Your task to perform on an android device: Open calendar and show me the first week of next month Image 0: 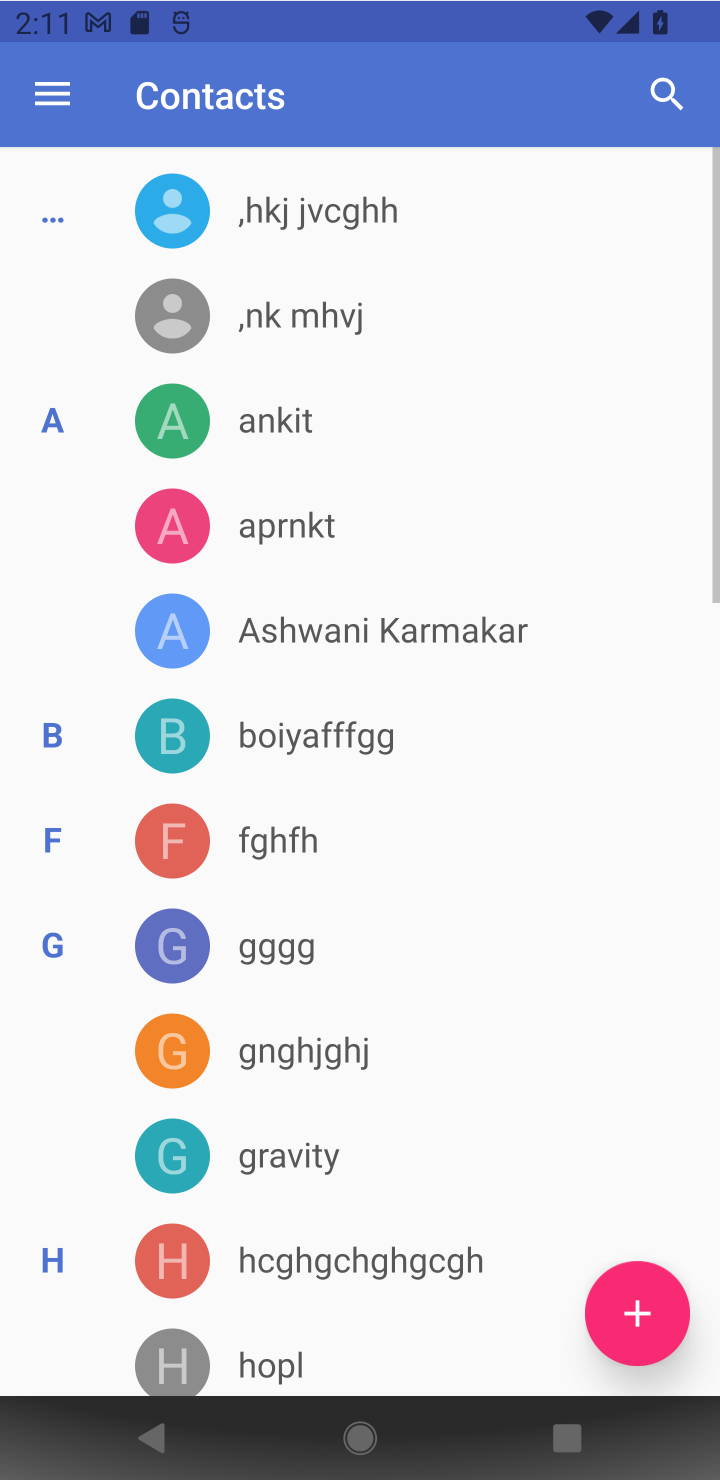
Step 0: press home button
Your task to perform on an android device: Open calendar and show me the first week of next month Image 1: 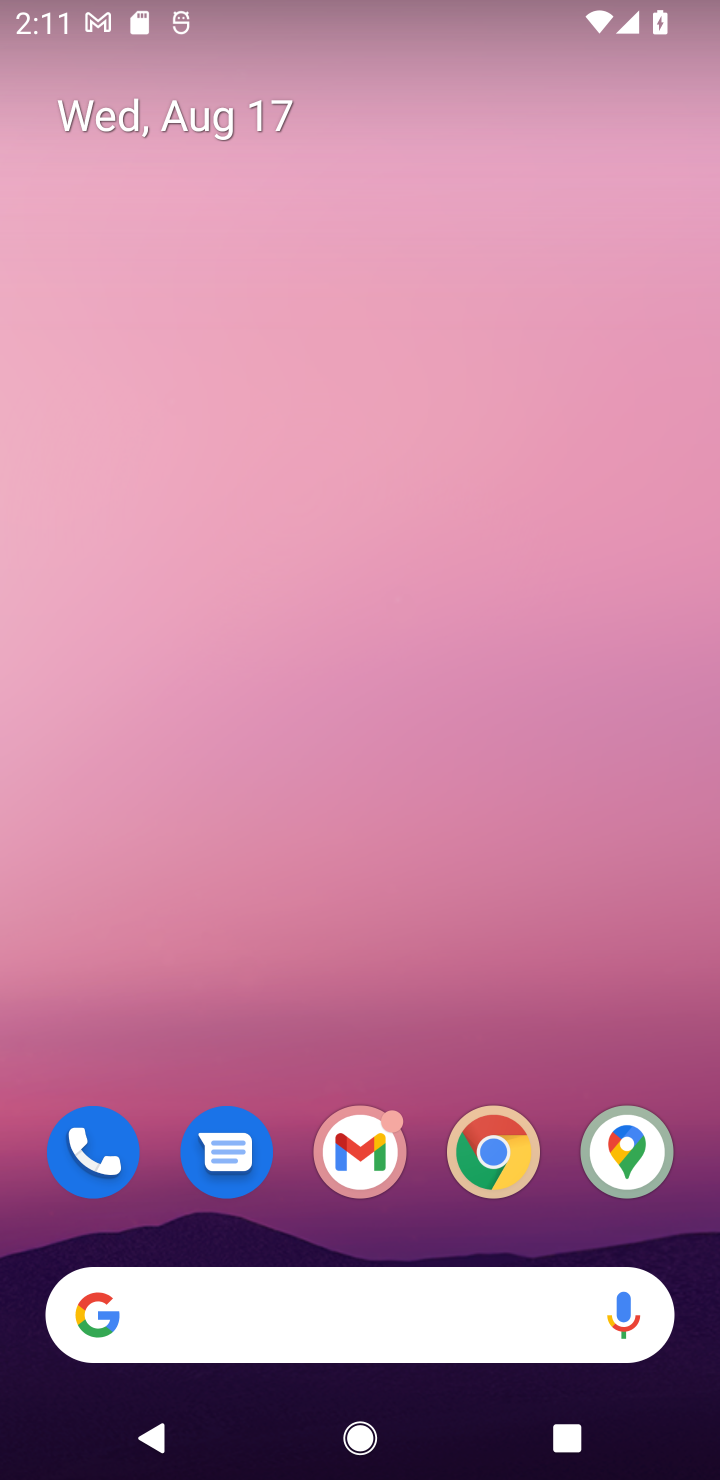
Step 1: drag from (623, 846) to (398, 25)
Your task to perform on an android device: Open calendar and show me the first week of next month Image 2: 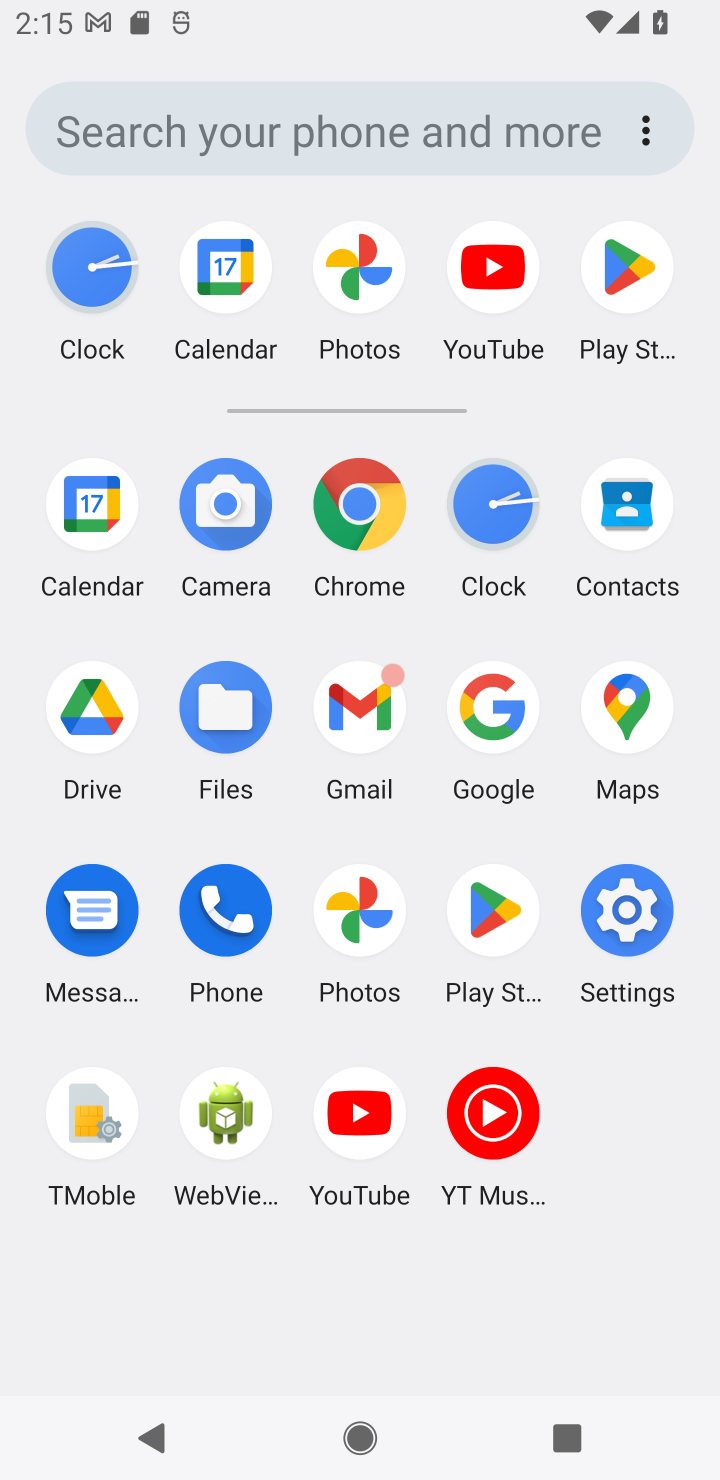
Step 2: click (69, 489)
Your task to perform on an android device: Open calendar and show me the first week of next month Image 3: 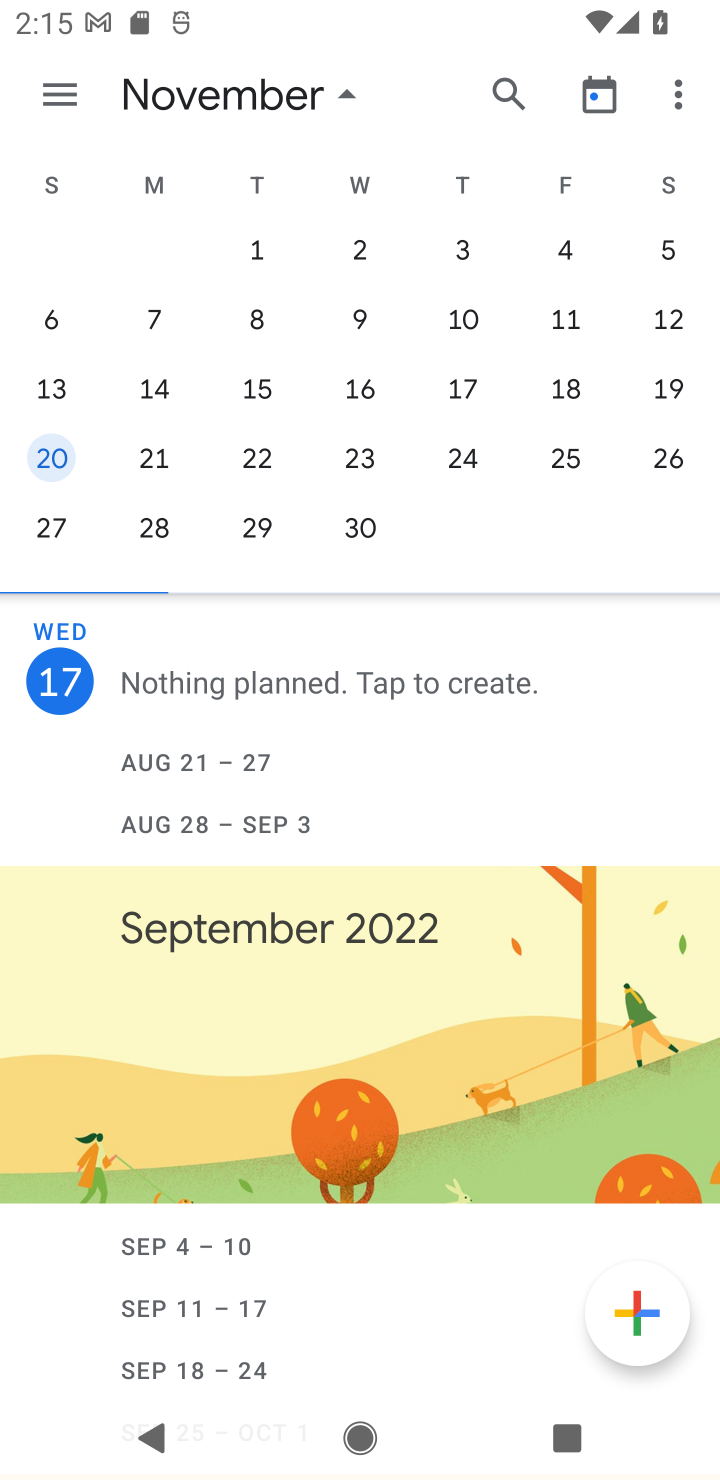
Step 3: task complete